Your task to perform on an android device: toggle show notifications on the lock screen Image 0: 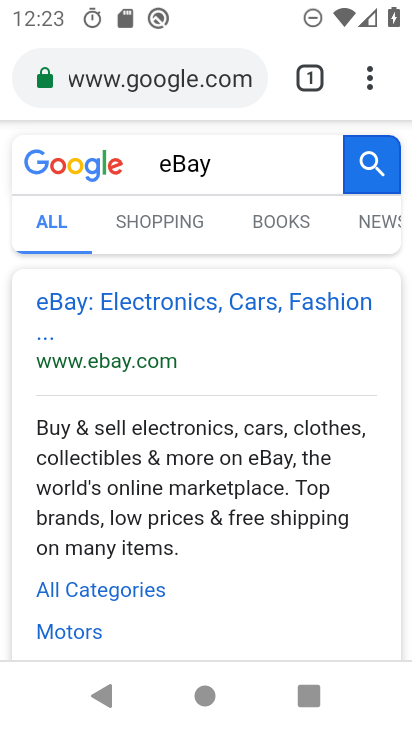
Step 0: press home button
Your task to perform on an android device: toggle show notifications on the lock screen Image 1: 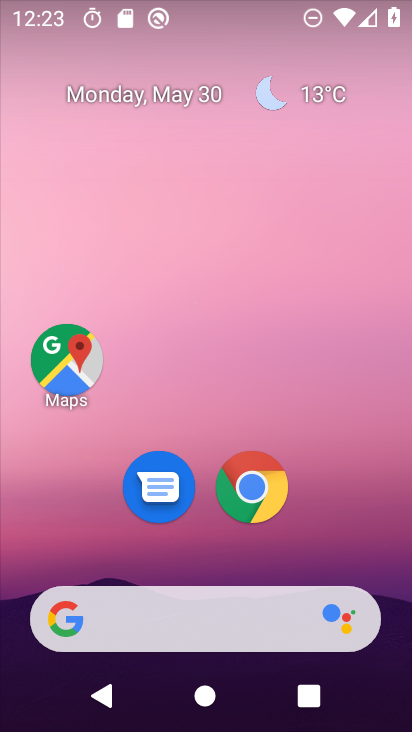
Step 1: drag from (380, 703) to (364, 204)
Your task to perform on an android device: toggle show notifications on the lock screen Image 2: 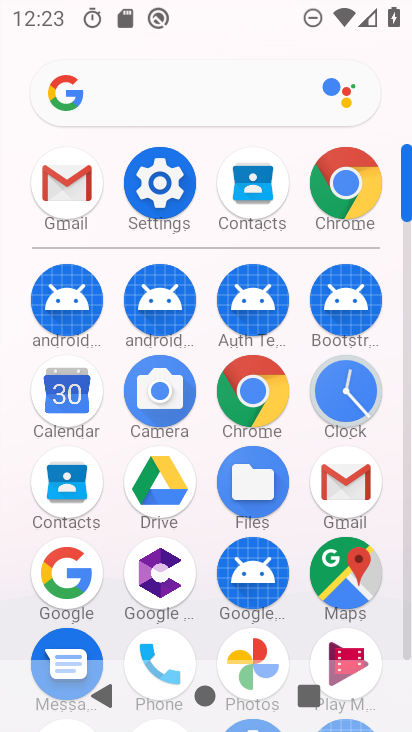
Step 2: click (165, 189)
Your task to perform on an android device: toggle show notifications on the lock screen Image 3: 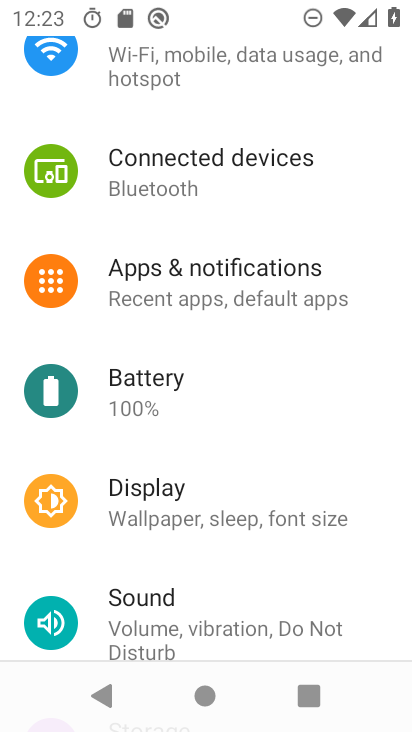
Step 3: click (221, 280)
Your task to perform on an android device: toggle show notifications on the lock screen Image 4: 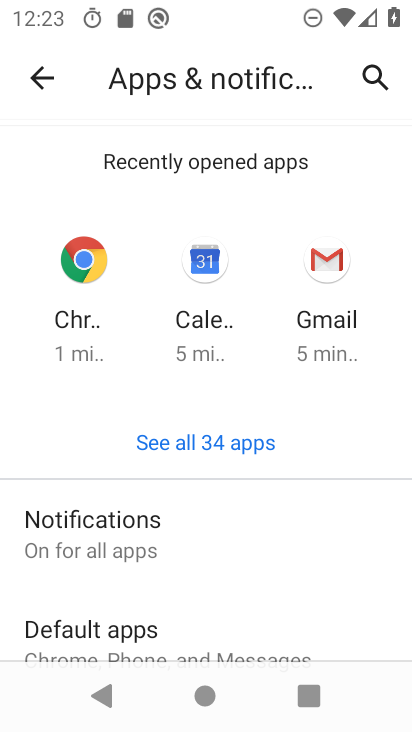
Step 4: click (103, 542)
Your task to perform on an android device: toggle show notifications on the lock screen Image 5: 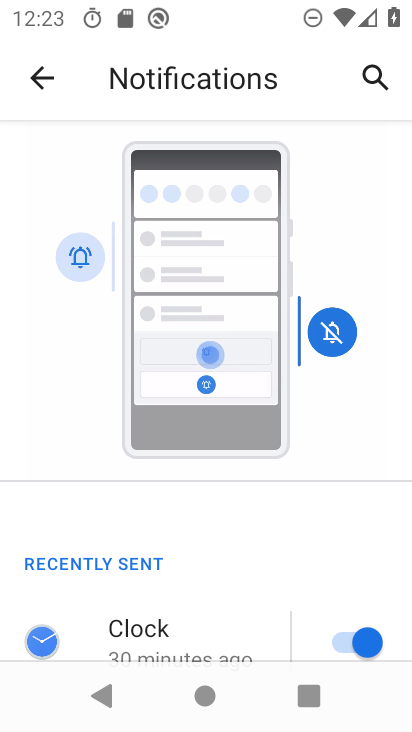
Step 5: drag from (239, 625) to (275, 333)
Your task to perform on an android device: toggle show notifications on the lock screen Image 6: 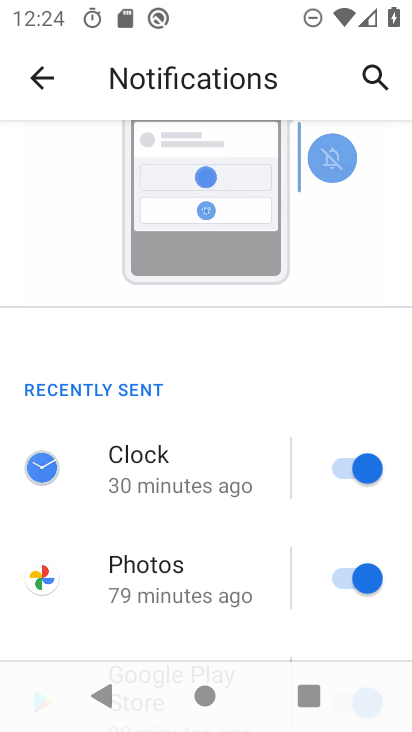
Step 6: drag from (232, 622) to (307, 280)
Your task to perform on an android device: toggle show notifications on the lock screen Image 7: 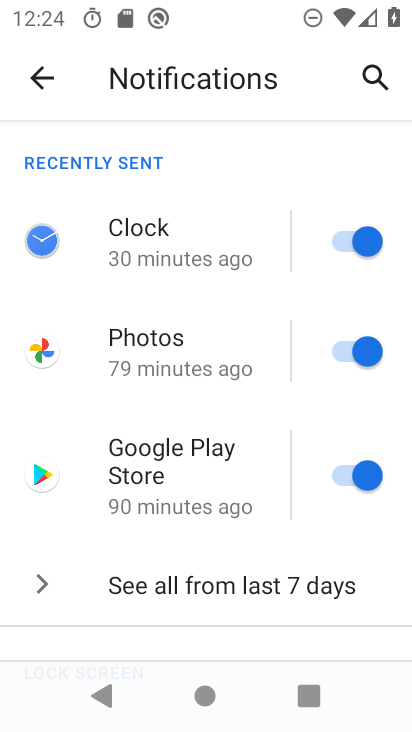
Step 7: drag from (242, 602) to (261, 310)
Your task to perform on an android device: toggle show notifications on the lock screen Image 8: 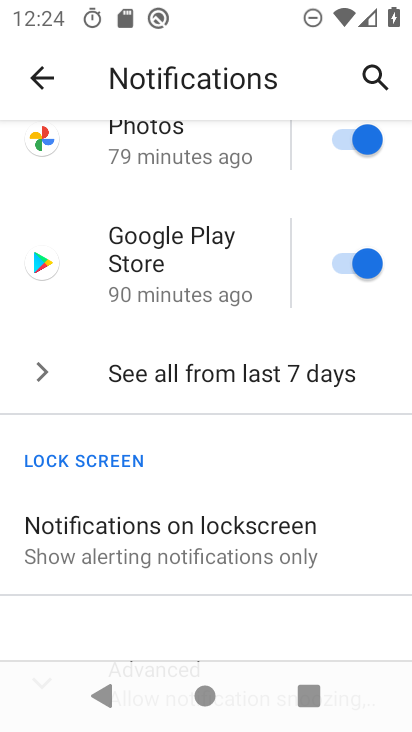
Step 8: click (183, 525)
Your task to perform on an android device: toggle show notifications on the lock screen Image 9: 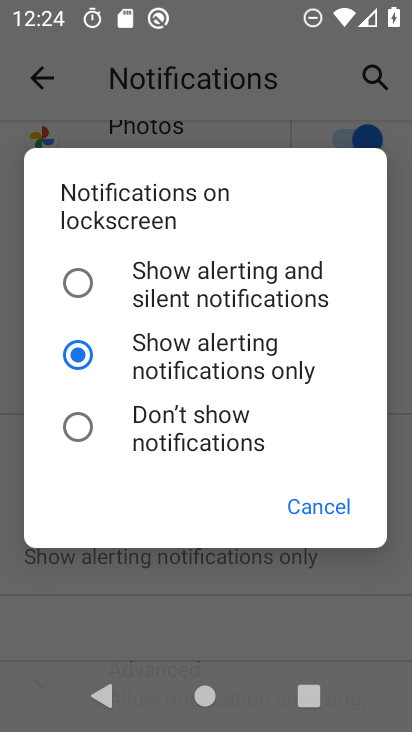
Step 9: click (81, 270)
Your task to perform on an android device: toggle show notifications on the lock screen Image 10: 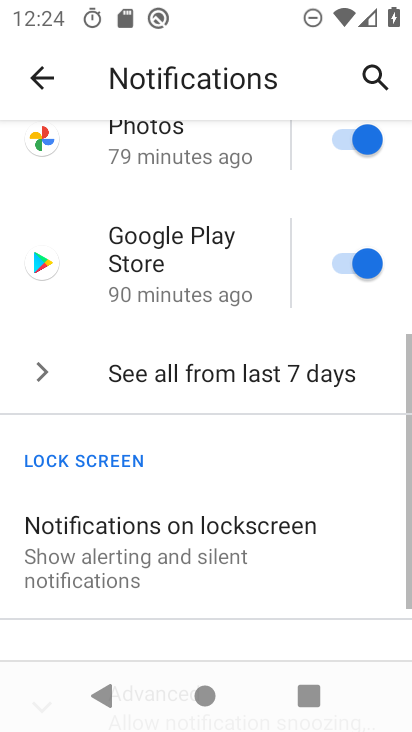
Step 10: task complete